Your task to perform on an android device: set the timer Image 0: 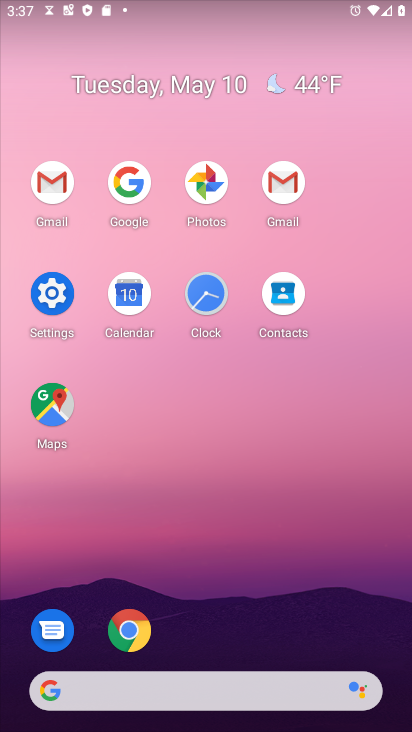
Step 0: click (202, 297)
Your task to perform on an android device: set the timer Image 1: 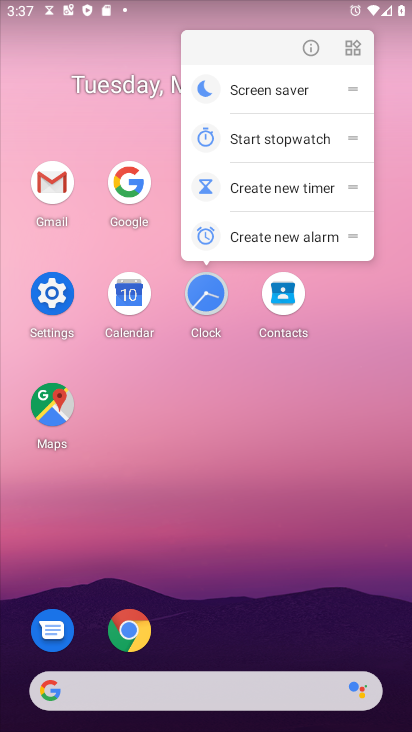
Step 1: click (202, 297)
Your task to perform on an android device: set the timer Image 2: 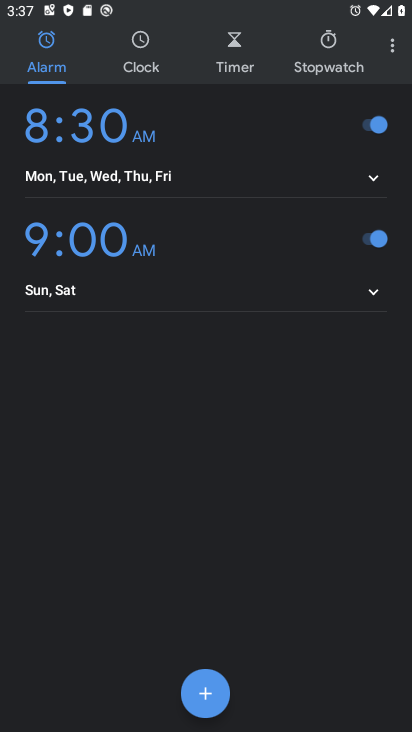
Step 2: click (224, 65)
Your task to perform on an android device: set the timer Image 3: 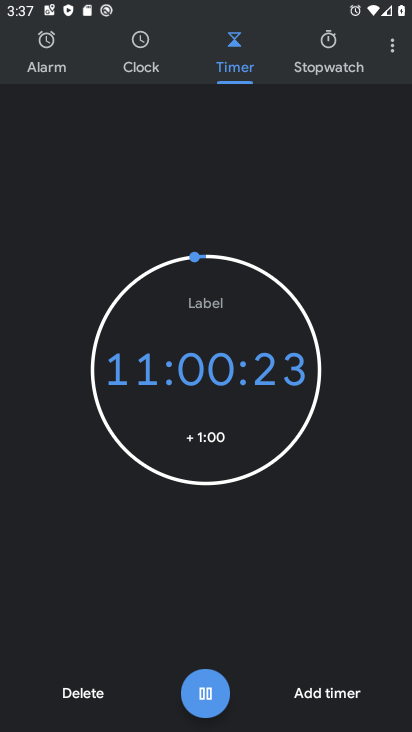
Step 3: click (331, 686)
Your task to perform on an android device: set the timer Image 4: 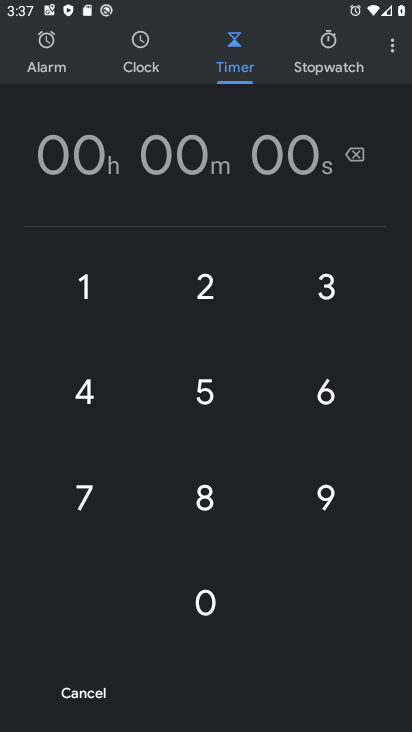
Step 4: click (232, 274)
Your task to perform on an android device: set the timer Image 5: 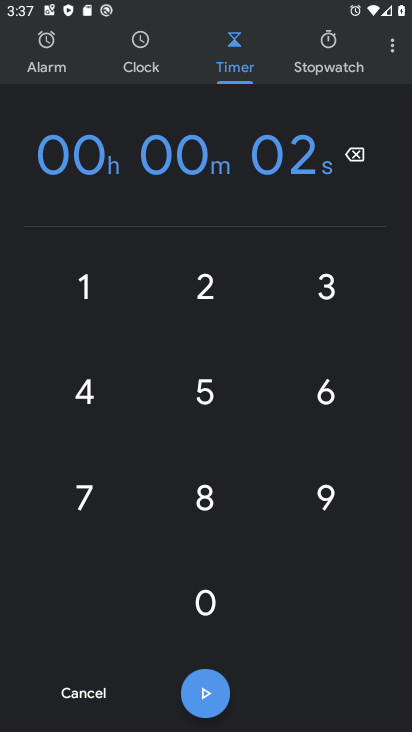
Step 5: click (195, 691)
Your task to perform on an android device: set the timer Image 6: 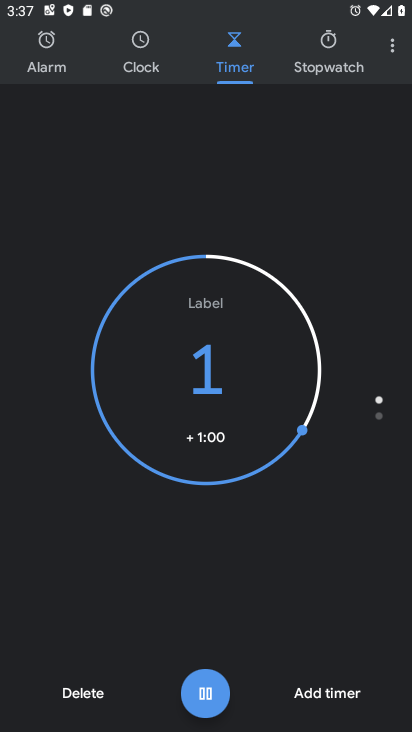
Step 6: task complete